Your task to perform on an android device: snooze an email in the gmail app Image 0: 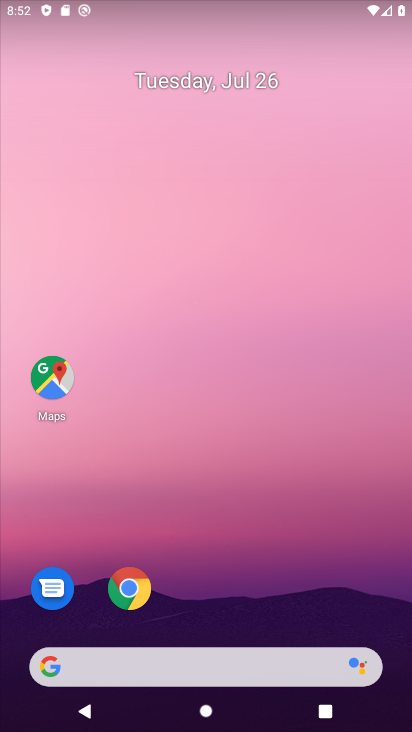
Step 0: drag from (210, 637) to (242, 303)
Your task to perform on an android device: snooze an email in the gmail app Image 1: 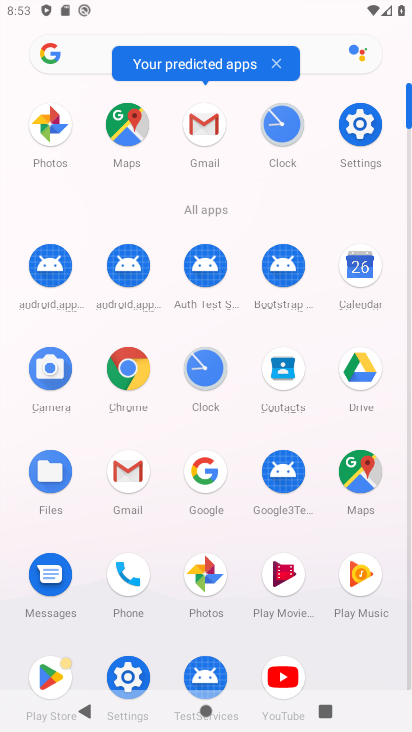
Step 1: click (142, 462)
Your task to perform on an android device: snooze an email in the gmail app Image 2: 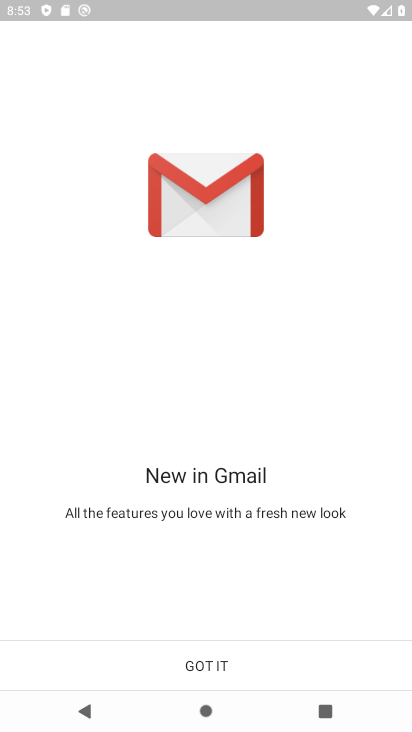
Step 2: click (208, 653)
Your task to perform on an android device: snooze an email in the gmail app Image 3: 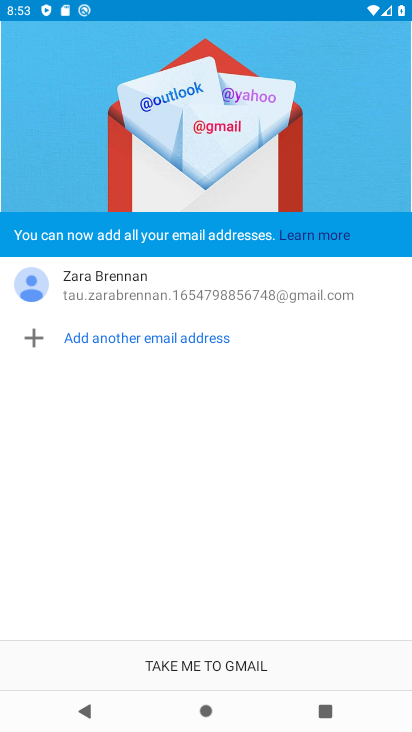
Step 3: click (207, 667)
Your task to perform on an android device: snooze an email in the gmail app Image 4: 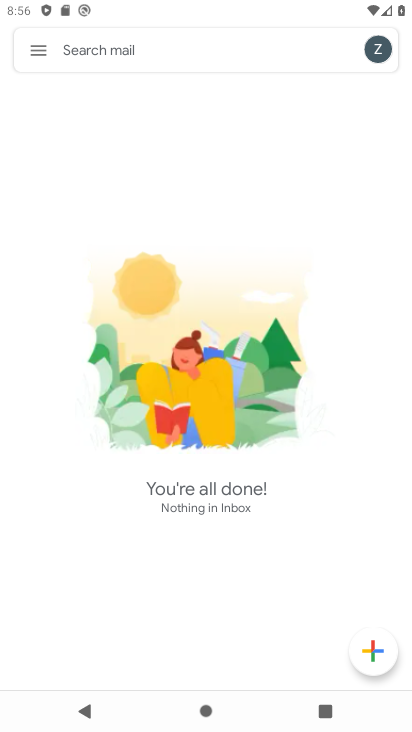
Step 4: task complete